Your task to perform on an android device: turn on notifications settings in the gmail app Image 0: 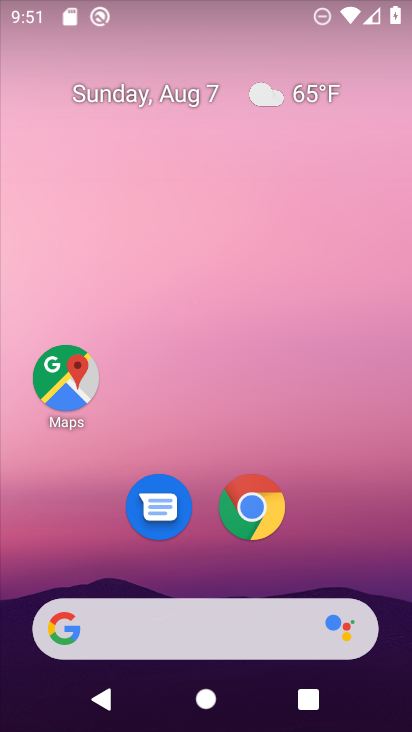
Step 0: drag from (345, 521) to (248, 20)
Your task to perform on an android device: turn on notifications settings in the gmail app Image 1: 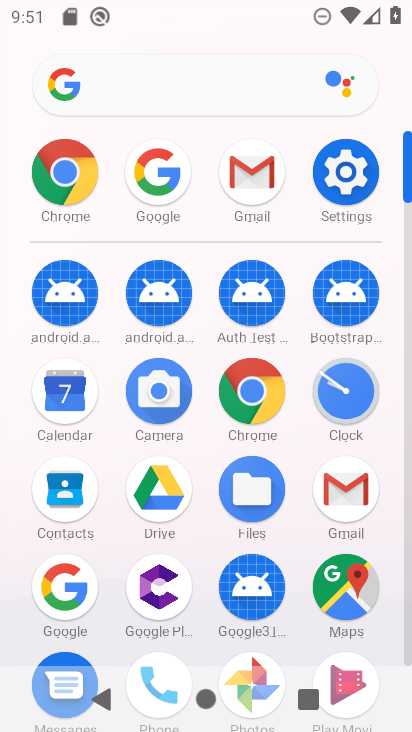
Step 1: click (348, 493)
Your task to perform on an android device: turn on notifications settings in the gmail app Image 2: 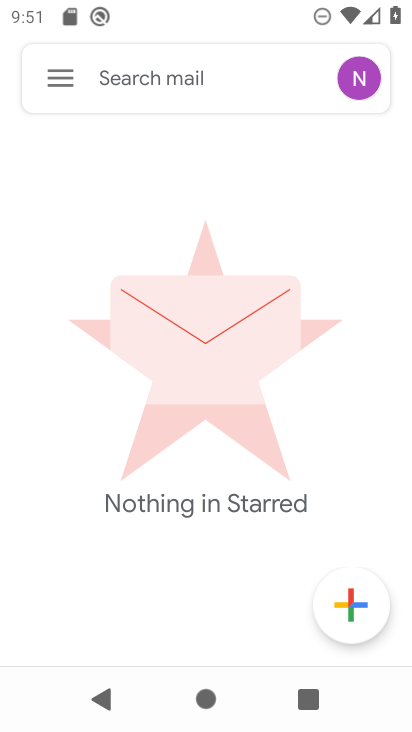
Step 2: click (65, 86)
Your task to perform on an android device: turn on notifications settings in the gmail app Image 3: 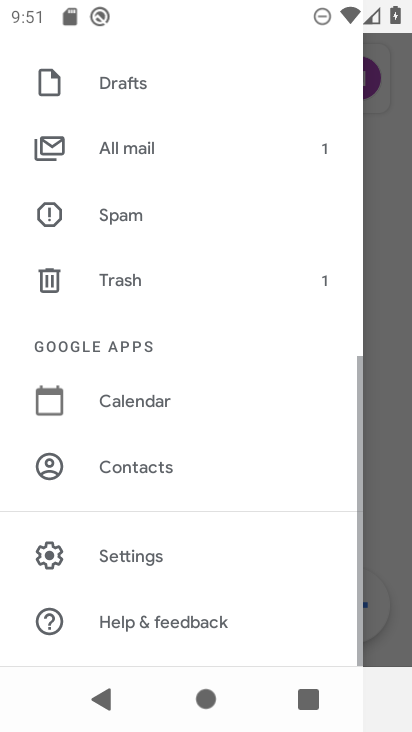
Step 3: click (158, 574)
Your task to perform on an android device: turn on notifications settings in the gmail app Image 4: 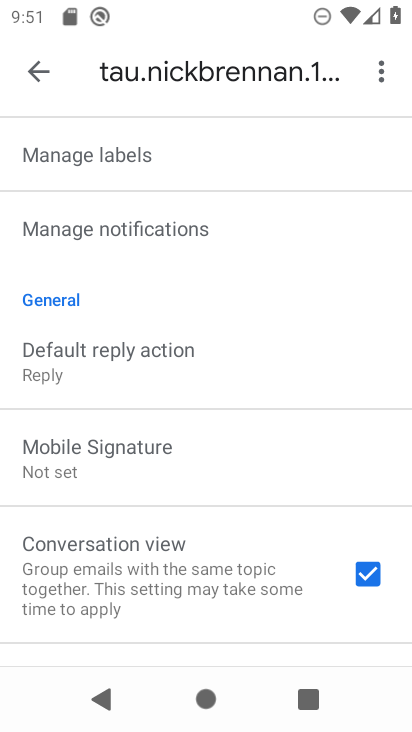
Step 4: click (162, 225)
Your task to perform on an android device: turn on notifications settings in the gmail app Image 5: 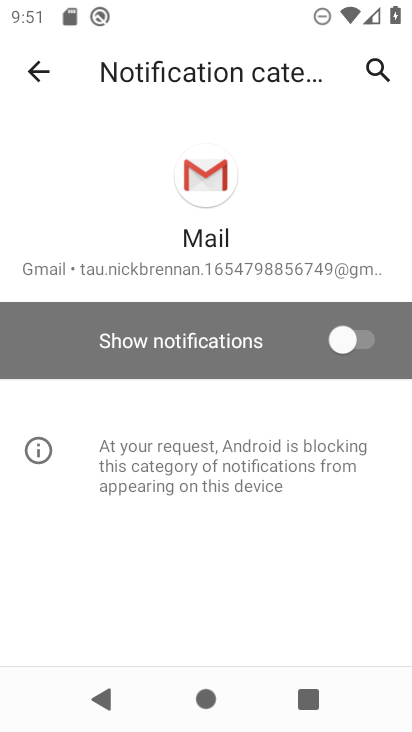
Step 5: click (322, 358)
Your task to perform on an android device: turn on notifications settings in the gmail app Image 6: 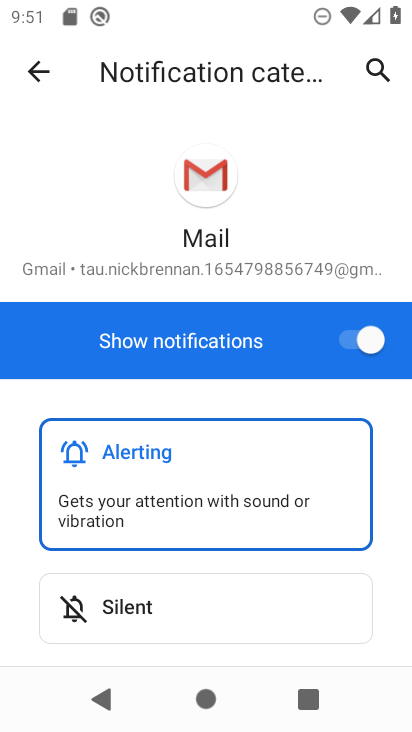
Step 6: task complete